Your task to perform on an android device: make emails show in primary in the gmail app Image 0: 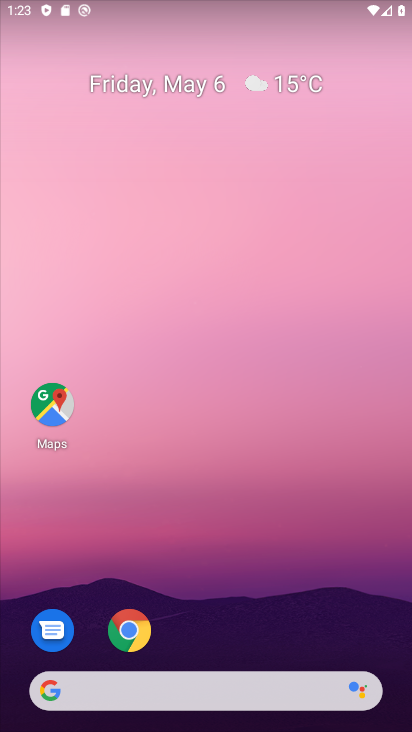
Step 0: drag from (247, 637) to (248, 39)
Your task to perform on an android device: make emails show in primary in the gmail app Image 1: 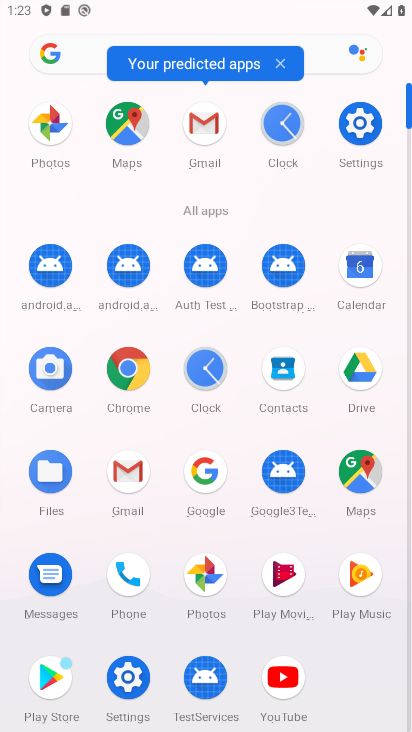
Step 1: click (207, 124)
Your task to perform on an android device: make emails show in primary in the gmail app Image 2: 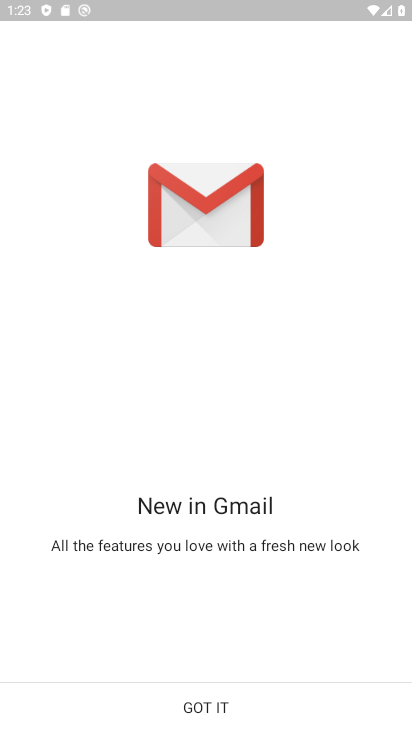
Step 2: click (244, 698)
Your task to perform on an android device: make emails show in primary in the gmail app Image 3: 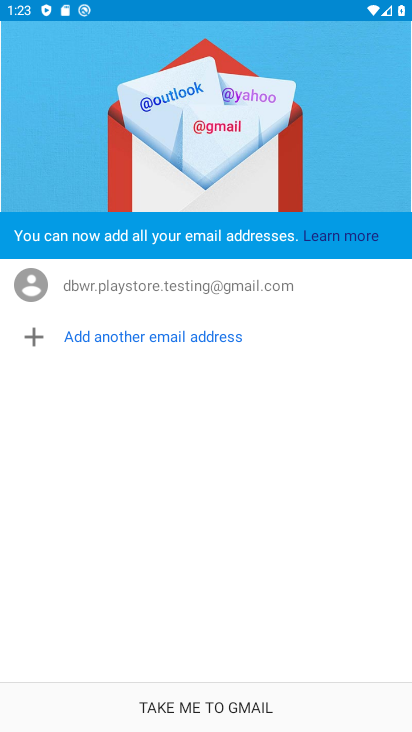
Step 3: click (244, 698)
Your task to perform on an android device: make emails show in primary in the gmail app Image 4: 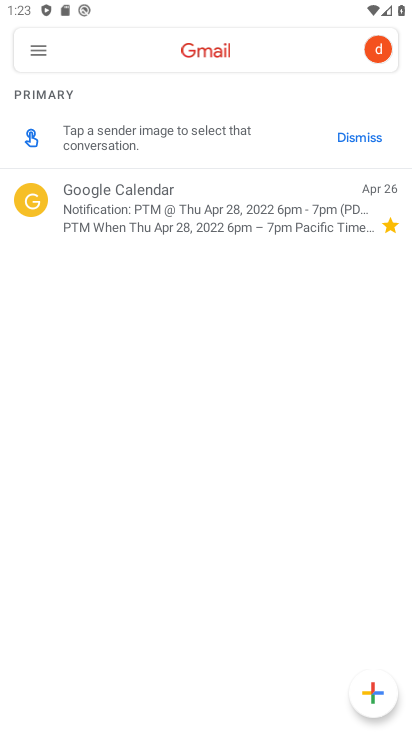
Step 4: click (39, 50)
Your task to perform on an android device: make emails show in primary in the gmail app Image 5: 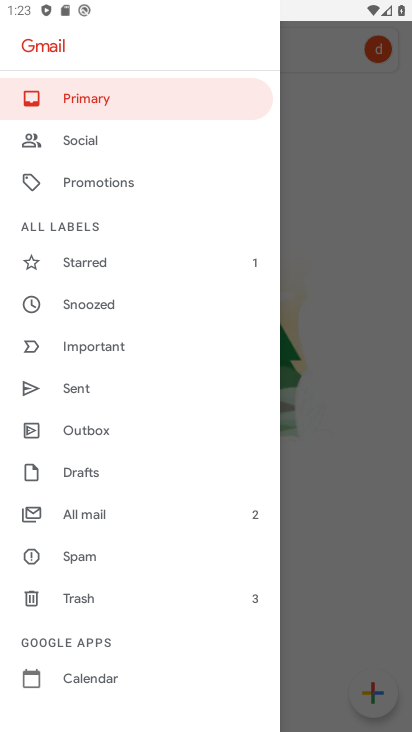
Step 5: drag from (132, 646) to (159, 271)
Your task to perform on an android device: make emails show in primary in the gmail app Image 6: 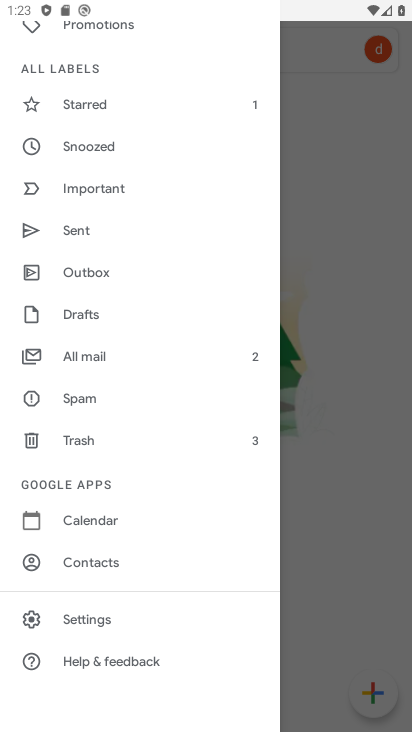
Step 6: click (83, 611)
Your task to perform on an android device: make emails show in primary in the gmail app Image 7: 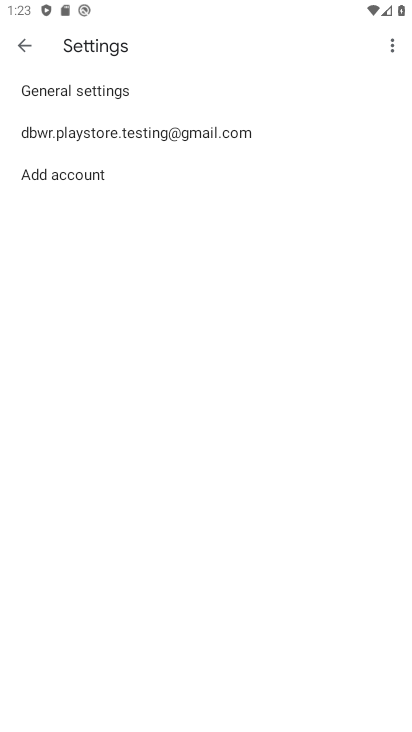
Step 7: click (163, 131)
Your task to perform on an android device: make emails show in primary in the gmail app Image 8: 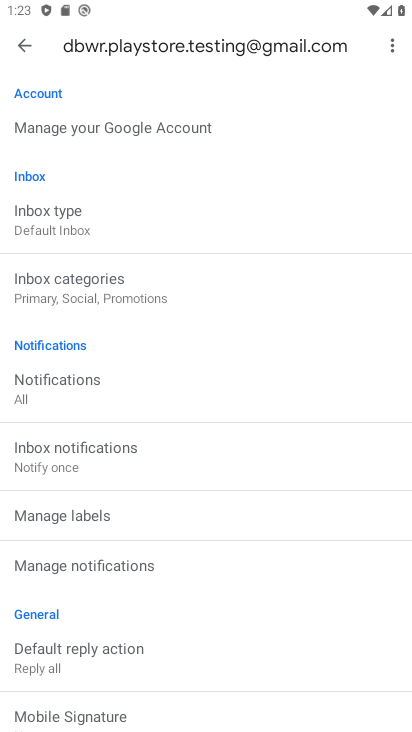
Step 8: click (110, 296)
Your task to perform on an android device: make emails show in primary in the gmail app Image 9: 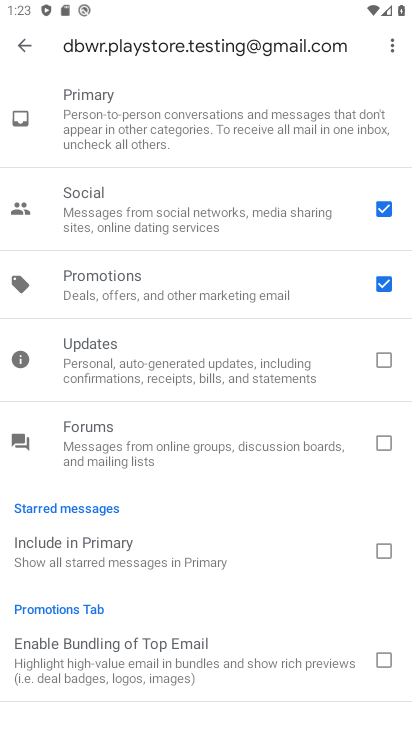
Step 9: click (381, 209)
Your task to perform on an android device: make emails show in primary in the gmail app Image 10: 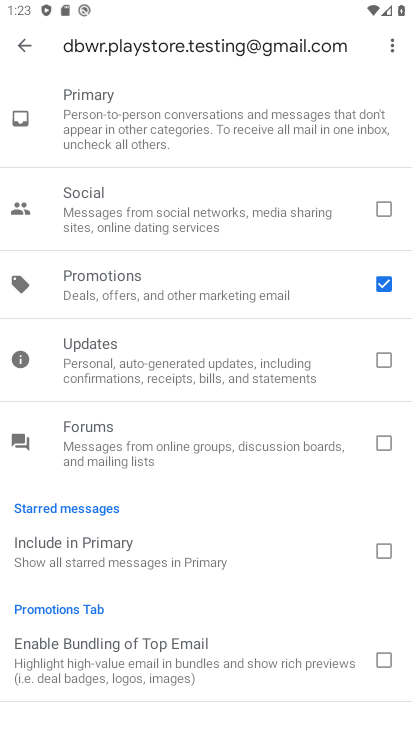
Step 10: click (390, 280)
Your task to perform on an android device: make emails show in primary in the gmail app Image 11: 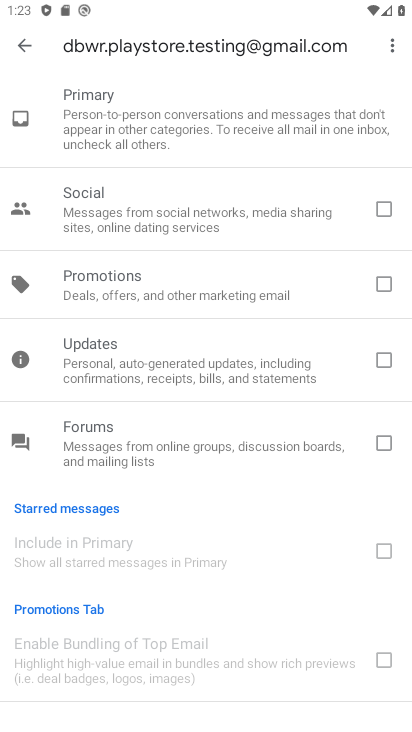
Step 11: task complete